Your task to perform on an android device: Go to accessibility settings Image 0: 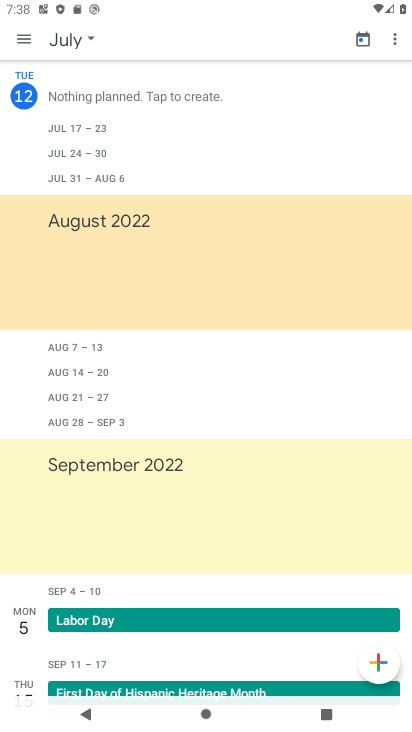
Step 0: press home button
Your task to perform on an android device: Go to accessibility settings Image 1: 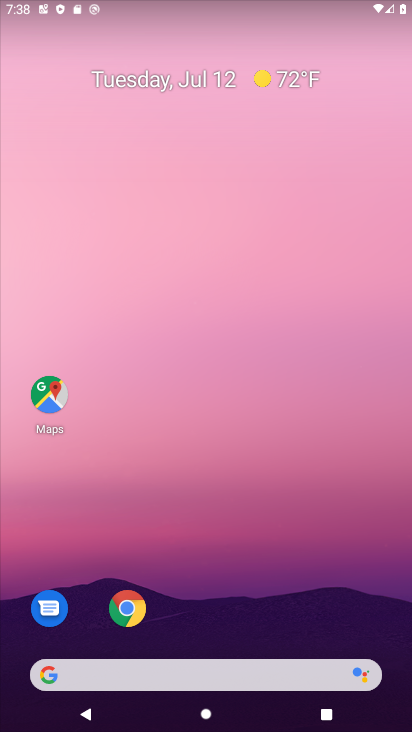
Step 1: drag from (357, 615) to (379, 98)
Your task to perform on an android device: Go to accessibility settings Image 2: 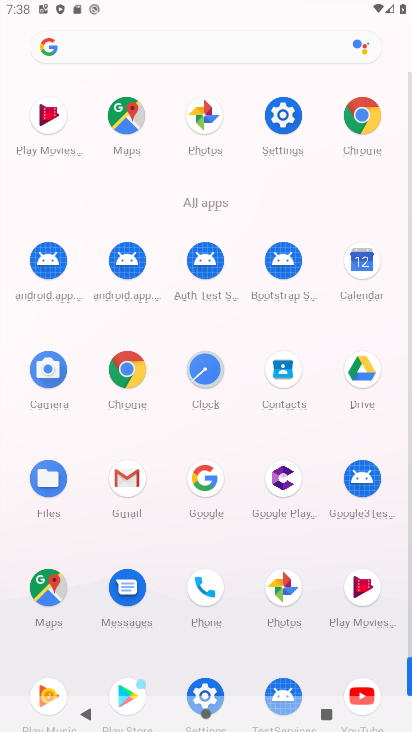
Step 2: click (292, 125)
Your task to perform on an android device: Go to accessibility settings Image 3: 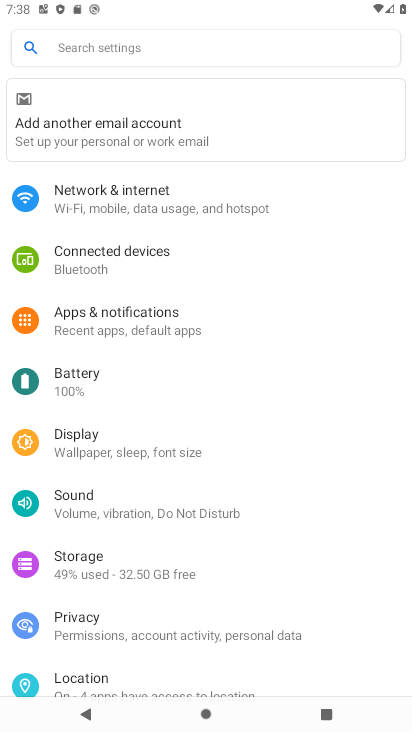
Step 3: drag from (328, 377) to (339, 278)
Your task to perform on an android device: Go to accessibility settings Image 4: 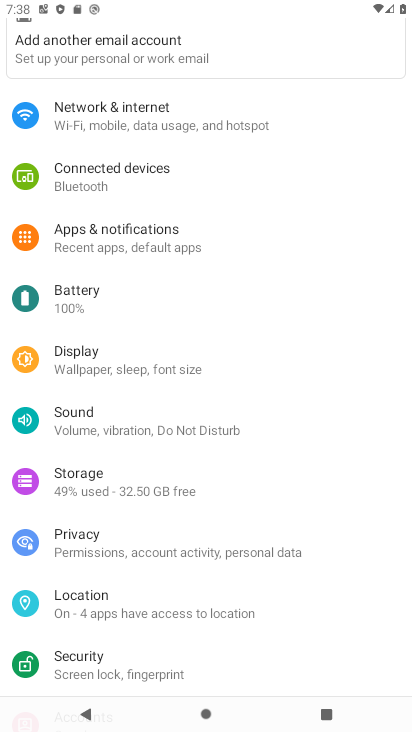
Step 4: drag from (346, 431) to (347, 320)
Your task to perform on an android device: Go to accessibility settings Image 5: 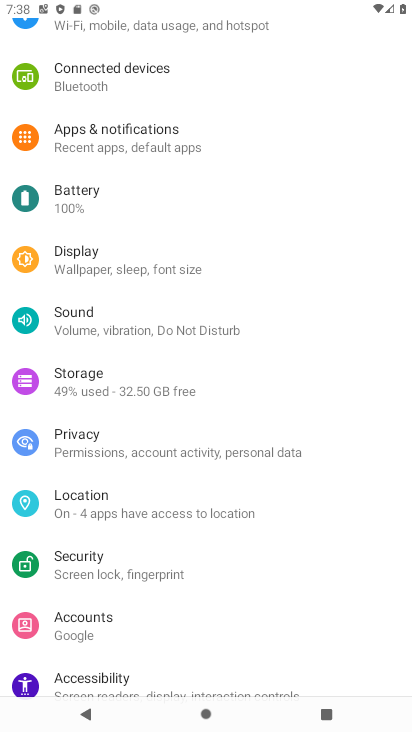
Step 5: drag from (356, 447) to (360, 327)
Your task to perform on an android device: Go to accessibility settings Image 6: 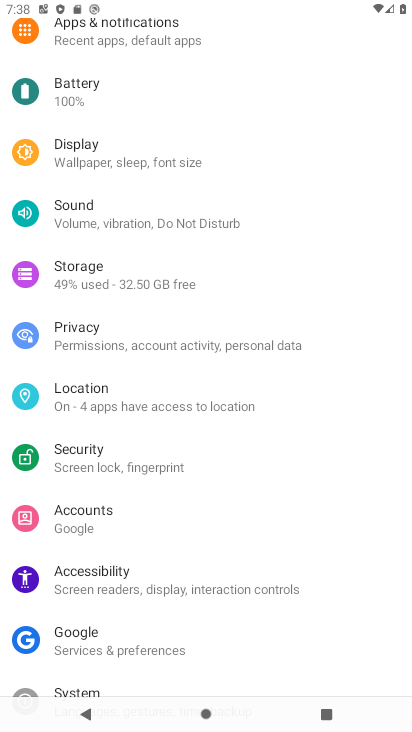
Step 6: drag from (356, 452) to (353, 340)
Your task to perform on an android device: Go to accessibility settings Image 7: 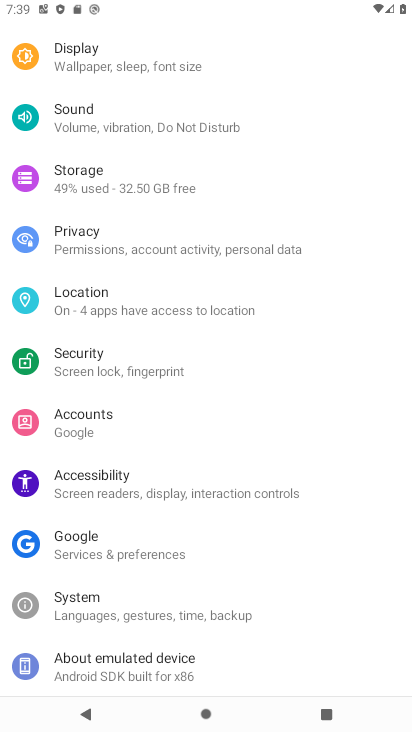
Step 7: click (270, 491)
Your task to perform on an android device: Go to accessibility settings Image 8: 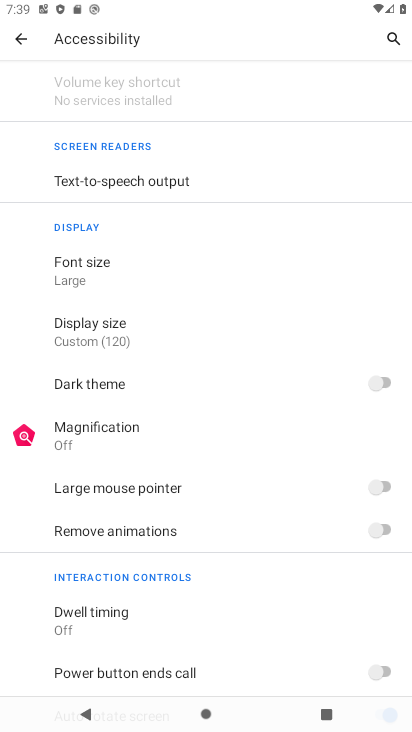
Step 8: task complete